Your task to perform on an android device: turn on airplane mode Image 0: 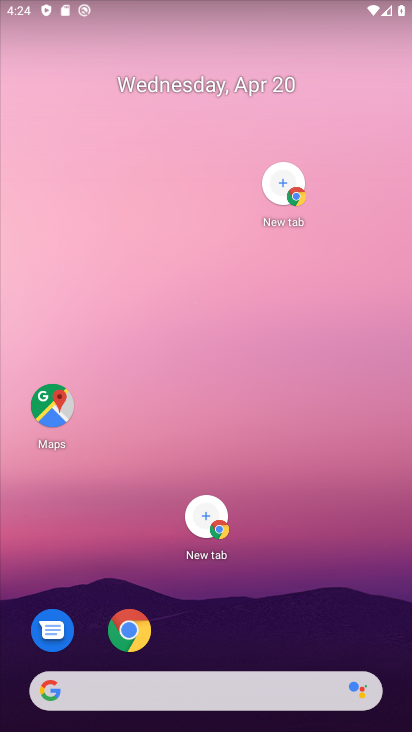
Step 0: drag from (300, 570) to (208, 179)
Your task to perform on an android device: turn on airplane mode Image 1: 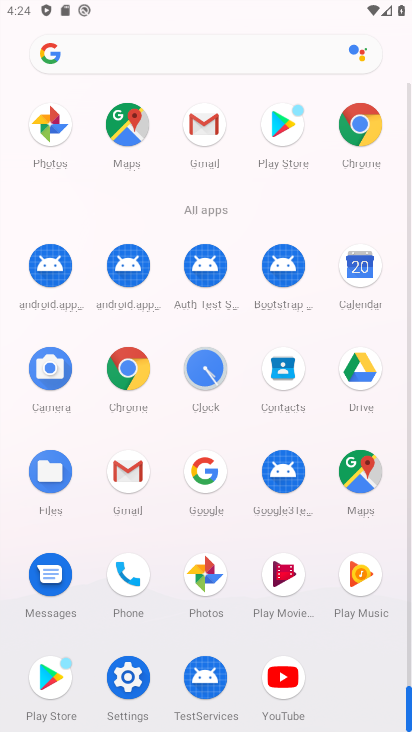
Step 1: click (125, 685)
Your task to perform on an android device: turn on airplane mode Image 2: 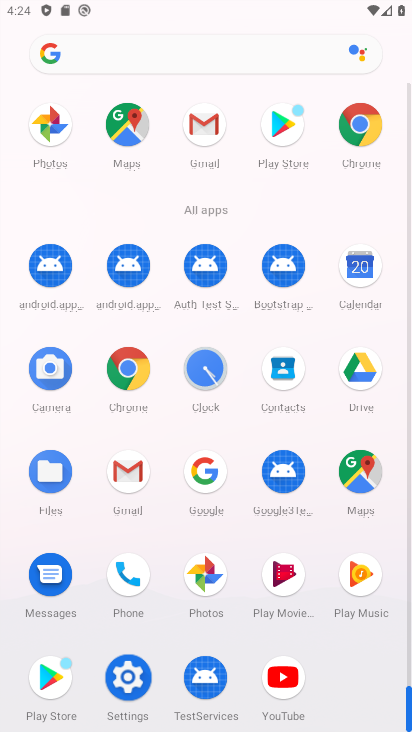
Step 2: click (123, 686)
Your task to perform on an android device: turn on airplane mode Image 3: 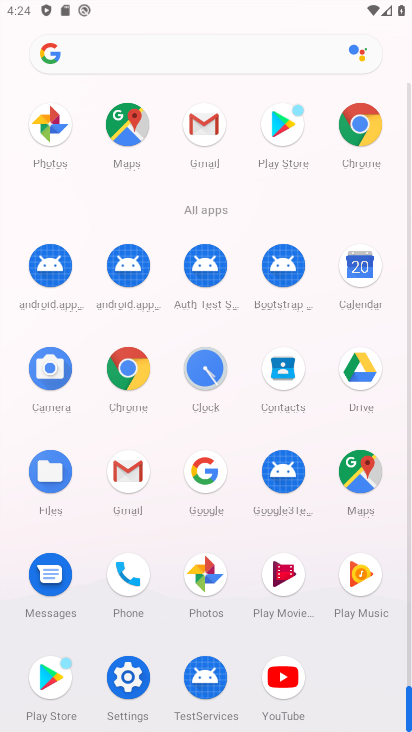
Step 3: click (113, 668)
Your task to perform on an android device: turn on airplane mode Image 4: 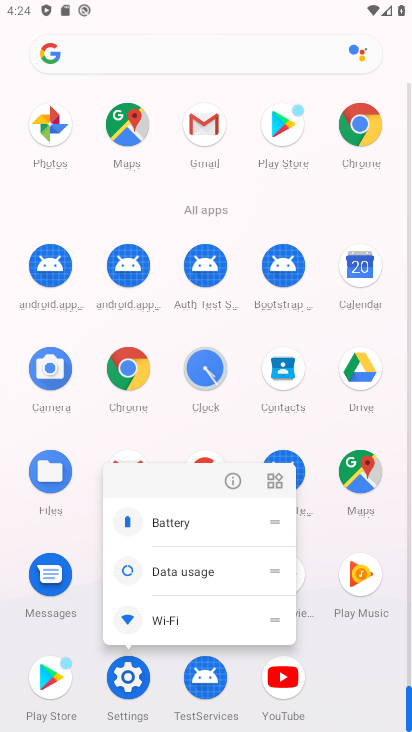
Step 4: click (113, 666)
Your task to perform on an android device: turn on airplane mode Image 5: 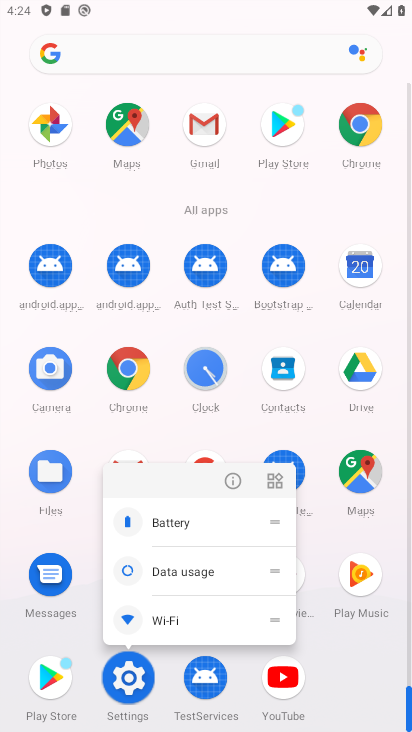
Step 5: click (112, 668)
Your task to perform on an android device: turn on airplane mode Image 6: 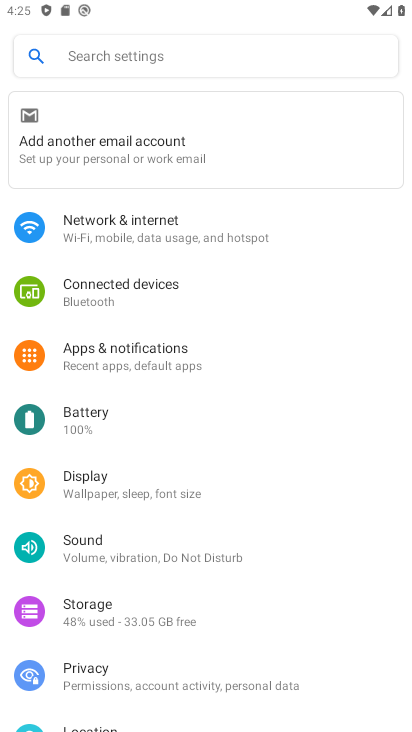
Step 6: click (129, 228)
Your task to perform on an android device: turn on airplane mode Image 7: 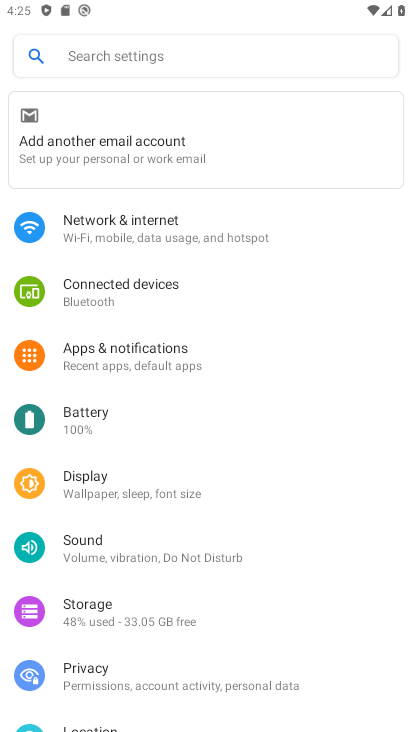
Step 7: click (130, 229)
Your task to perform on an android device: turn on airplane mode Image 8: 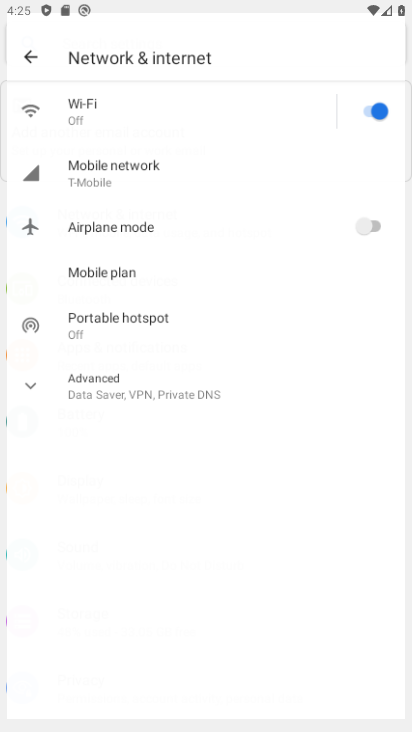
Step 8: click (130, 230)
Your task to perform on an android device: turn on airplane mode Image 9: 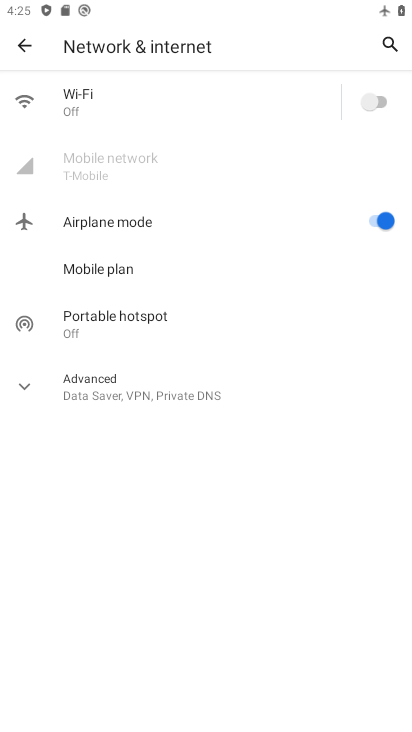
Step 9: click (374, 214)
Your task to perform on an android device: turn on airplane mode Image 10: 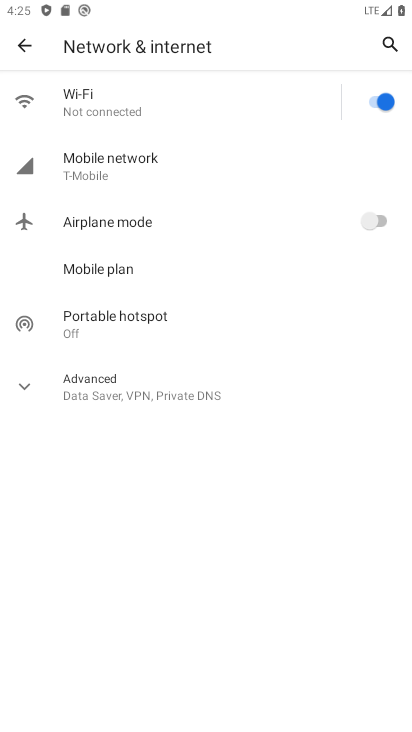
Step 10: task complete